Your task to perform on an android device: turn on showing notifications on the lock screen Image 0: 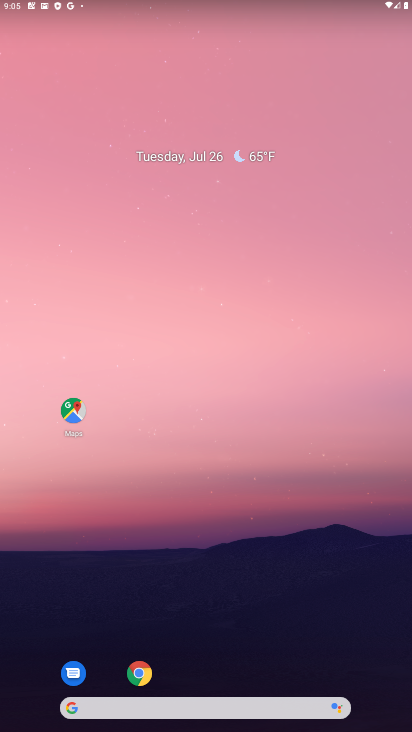
Step 0: drag from (372, 684) to (336, 75)
Your task to perform on an android device: turn on showing notifications on the lock screen Image 1: 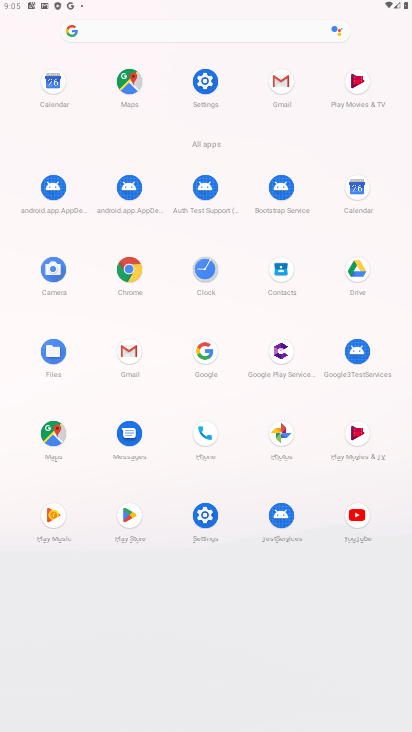
Step 1: click (204, 516)
Your task to perform on an android device: turn on showing notifications on the lock screen Image 2: 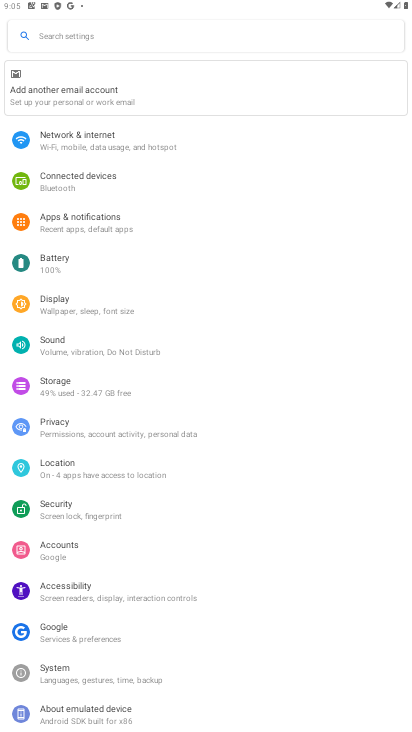
Step 2: click (60, 208)
Your task to perform on an android device: turn on showing notifications on the lock screen Image 3: 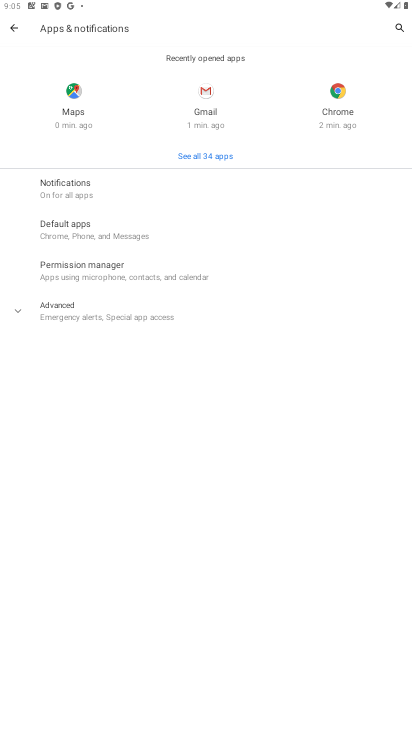
Step 3: click (63, 188)
Your task to perform on an android device: turn on showing notifications on the lock screen Image 4: 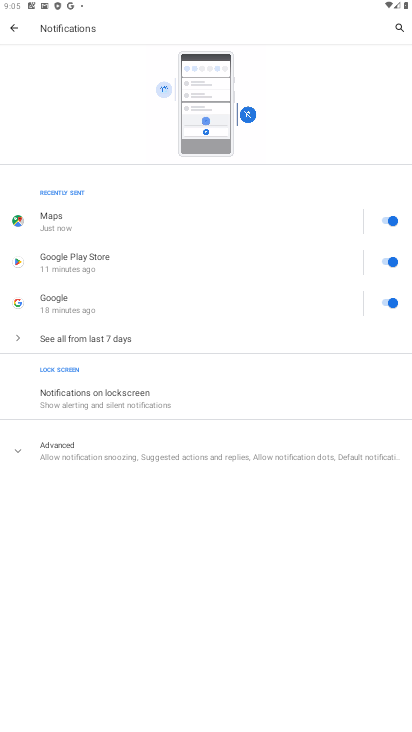
Step 4: click (84, 393)
Your task to perform on an android device: turn on showing notifications on the lock screen Image 5: 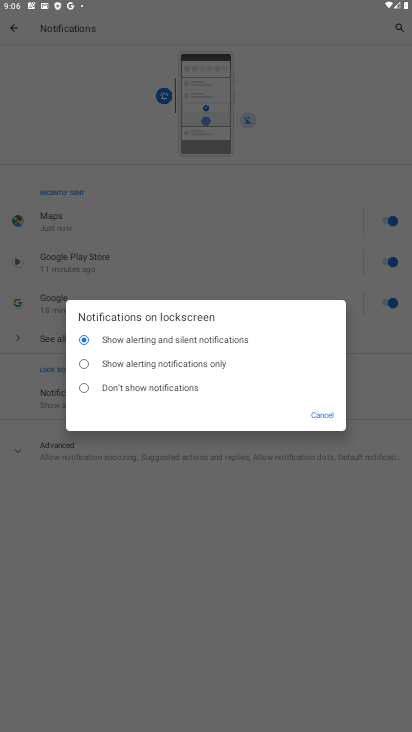
Step 5: task complete